Your task to perform on an android device: delete location history Image 0: 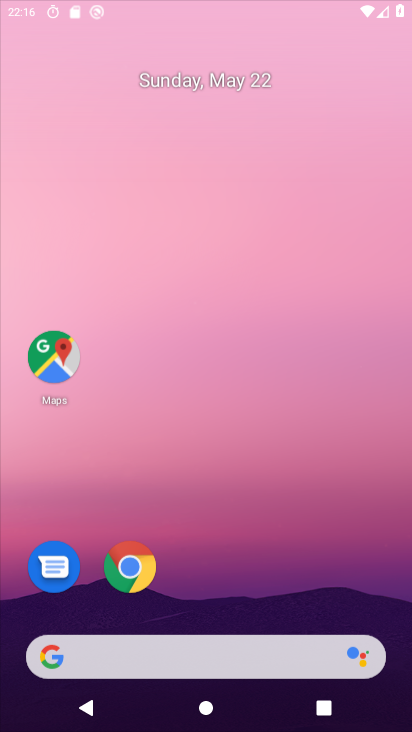
Step 0: click (188, 52)
Your task to perform on an android device: delete location history Image 1: 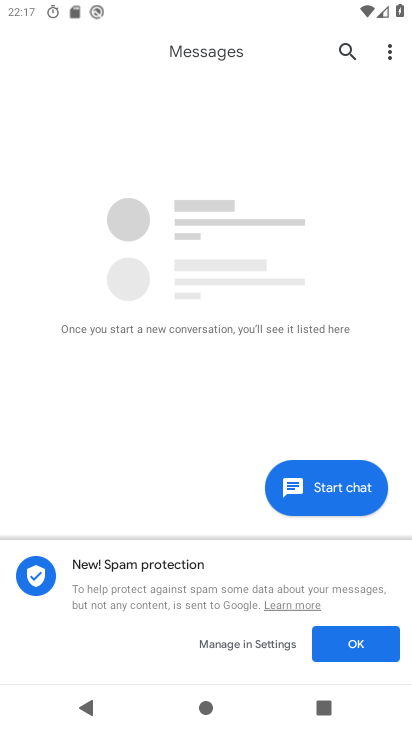
Step 1: press home button
Your task to perform on an android device: delete location history Image 2: 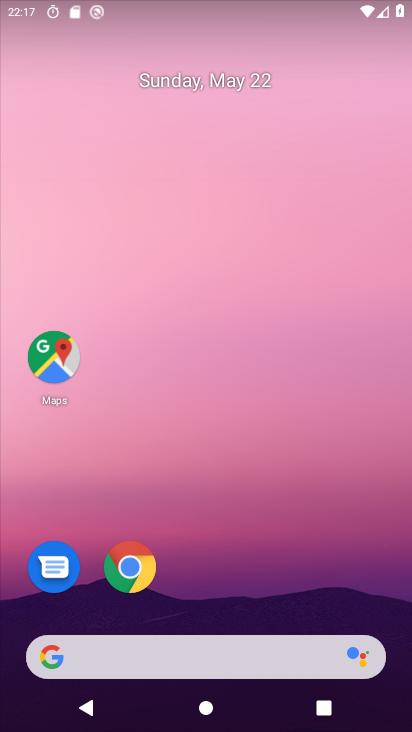
Step 2: click (61, 349)
Your task to perform on an android device: delete location history Image 3: 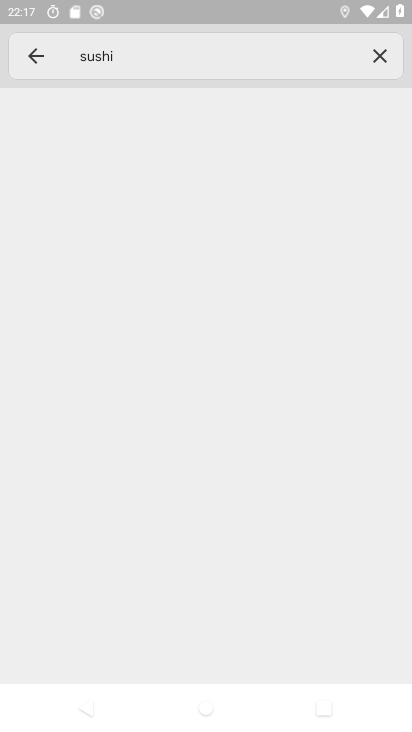
Step 3: click (381, 48)
Your task to perform on an android device: delete location history Image 4: 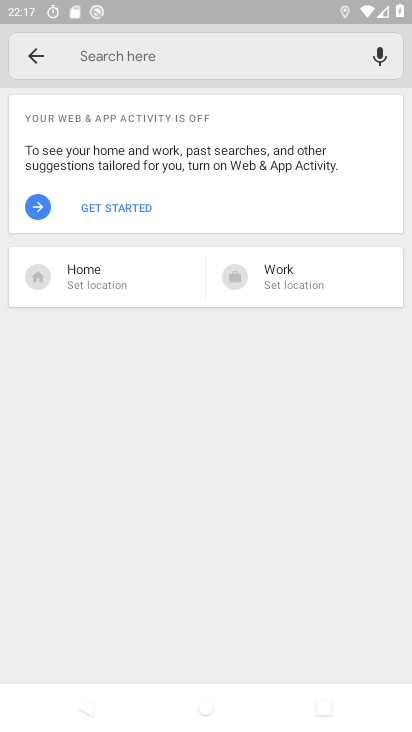
Step 4: click (31, 51)
Your task to perform on an android device: delete location history Image 5: 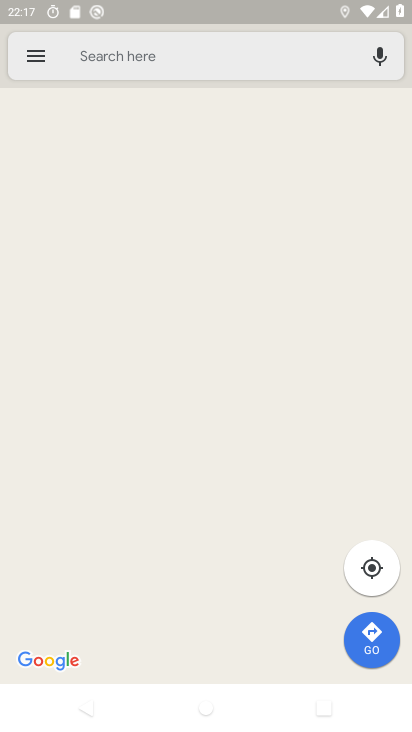
Step 5: click (33, 48)
Your task to perform on an android device: delete location history Image 6: 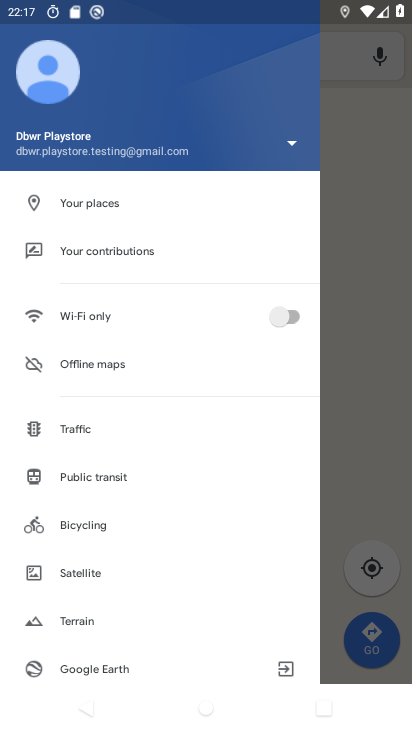
Step 6: task complete